Your task to perform on an android device: When is my next appointment? Image 0: 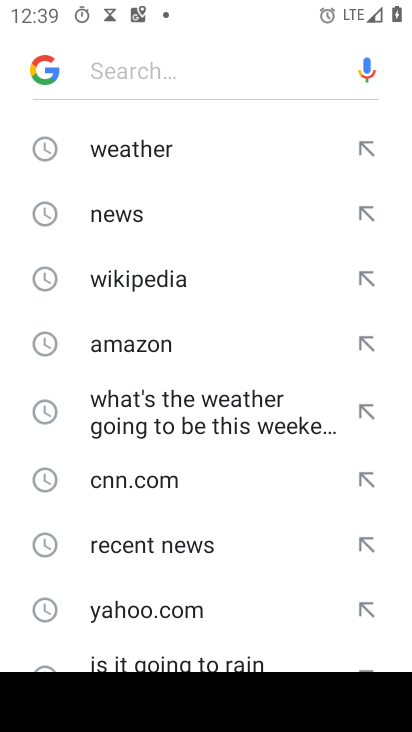
Step 0: press home button
Your task to perform on an android device: When is my next appointment? Image 1: 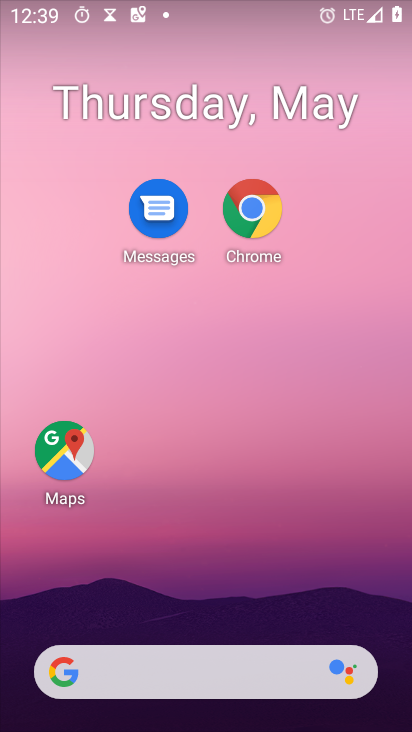
Step 1: drag from (217, 627) to (97, 44)
Your task to perform on an android device: When is my next appointment? Image 2: 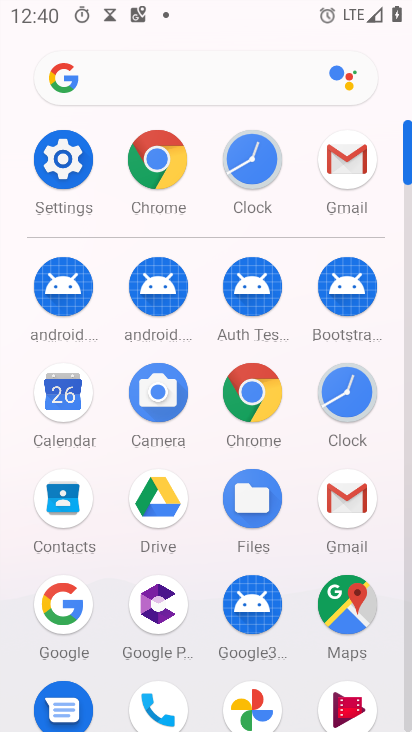
Step 2: click (59, 403)
Your task to perform on an android device: When is my next appointment? Image 3: 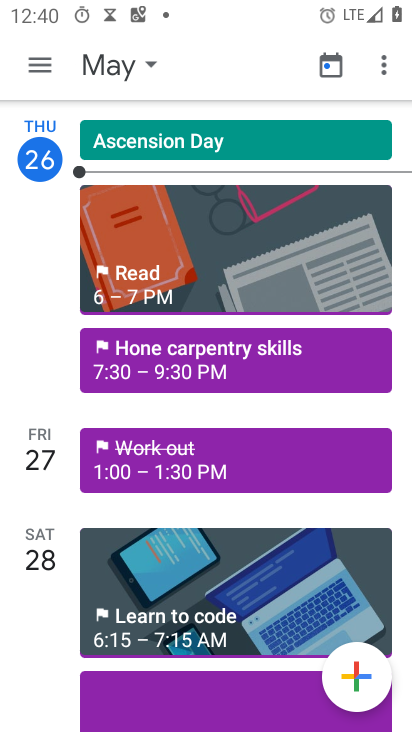
Step 3: task complete